Your task to perform on an android device: turn smart compose on in the gmail app Image 0: 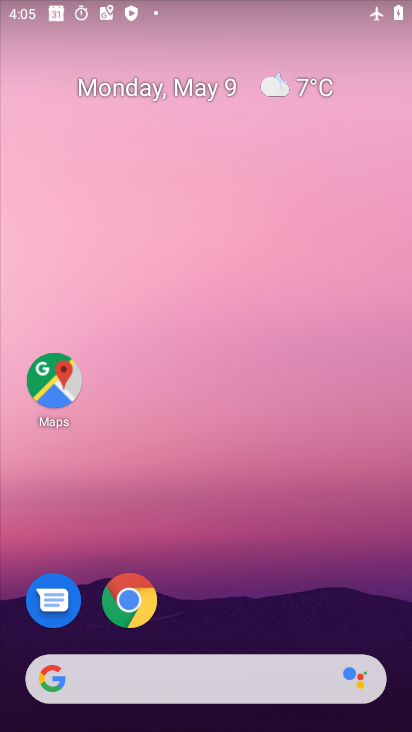
Step 0: drag from (303, 546) to (269, 53)
Your task to perform on an android device: turn smart compose on in the gmail app Image 1: 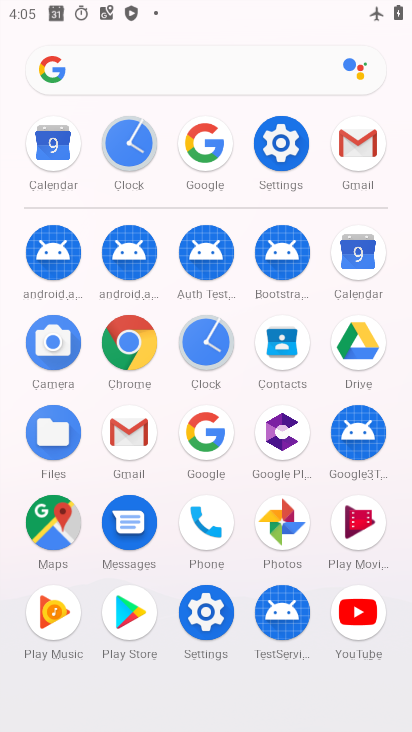
Step 1: click (368, 140)
Your task to perform on an android device: turn smart compose on in the gmail app Image 2: 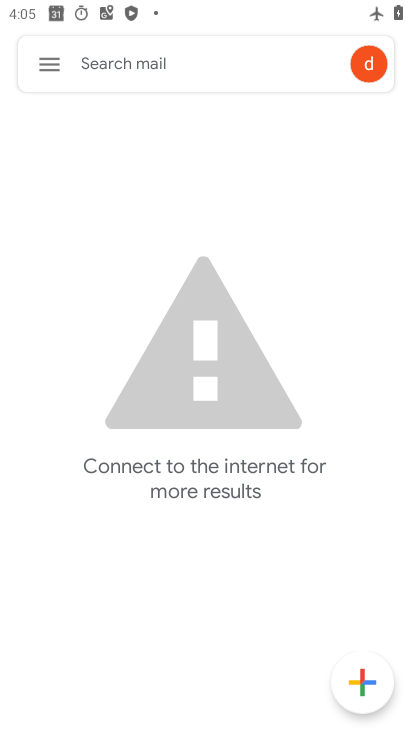
Step 2: click (64, 61)
Your task to perform on an android device: turn smart compose on in the gmail app Image 3: 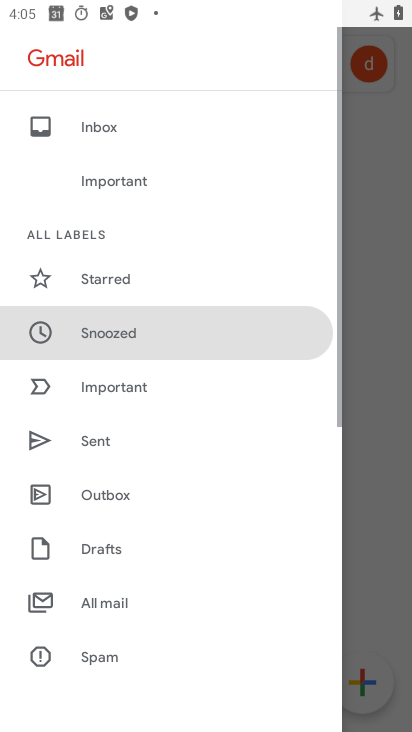
Step 3: drag from (123, 652) to (196, 141)
Your task to perform on an android device: turn smart compose on in the gmail app Image 4: 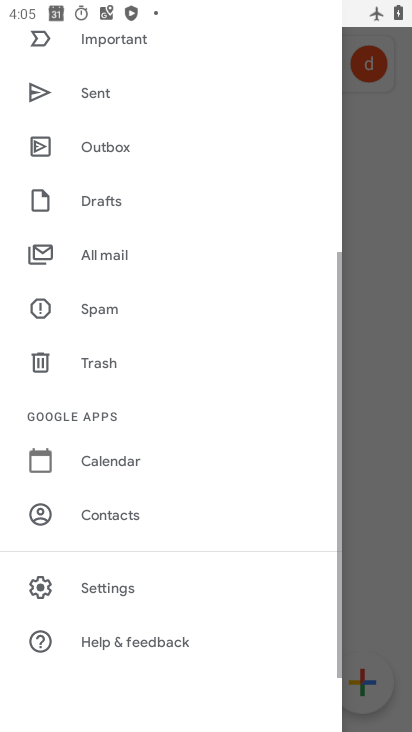
Step 4: click (117, 571)
Your task to perform on an android device: turn smart compose on in the gmail app Image 5: 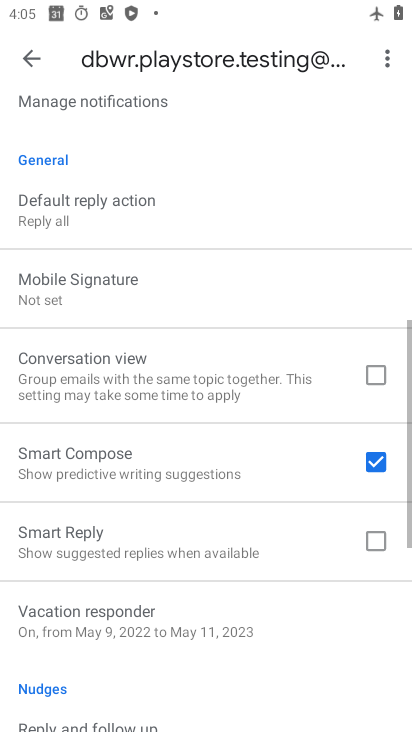
Step 5: task complete